Your task to perform on an android device: find snoozed emails in the gmail app Image 0: 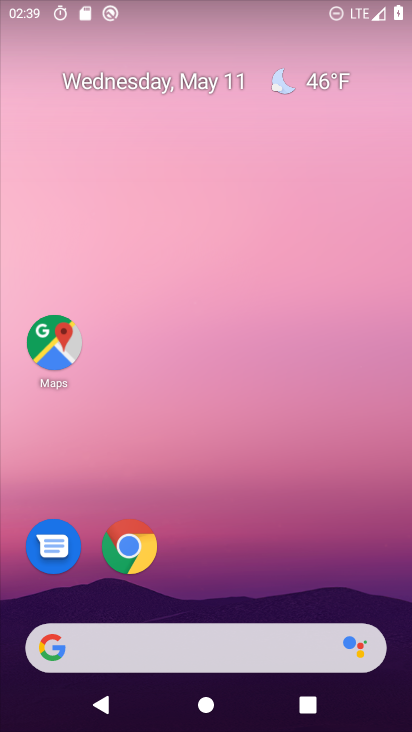
Step 0: drag from (271, 674) to (316, 118)
Your task to perform on an android device: find snoozed emails in the gmail app Image 1: 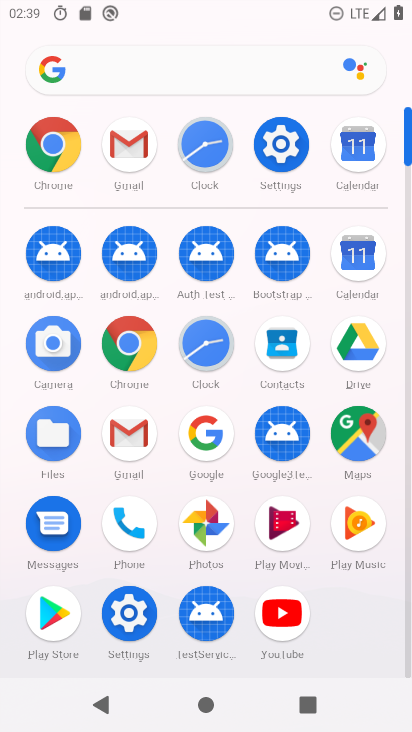
Step 1: click (126, 418)
Your task to perform on an android device: find snoozed emails in the gmail app Image 2: 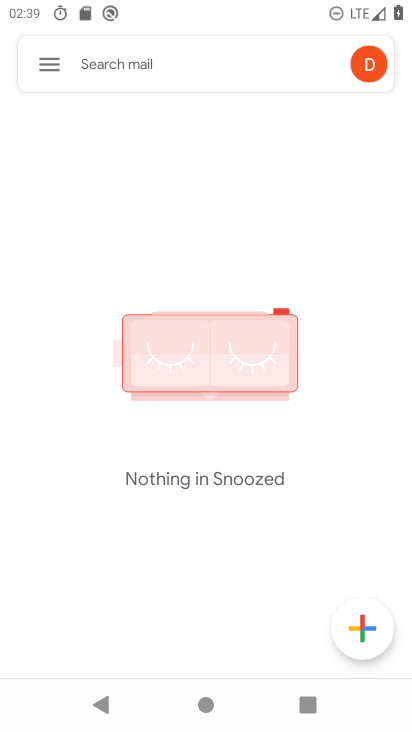
Step 2: click (42, 81)
Your task to perform on an android device: find snoozed emails in the gmail app Image 3: 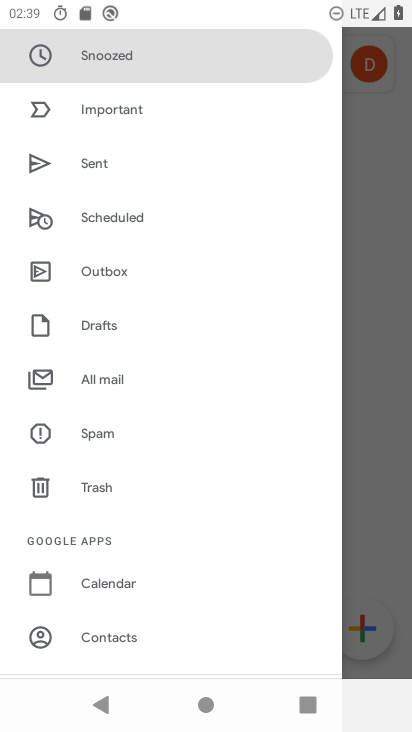
Step 3: click (114, 63)
Your task to perform on an android device: find snoozed emails in the gmail app Image 4: 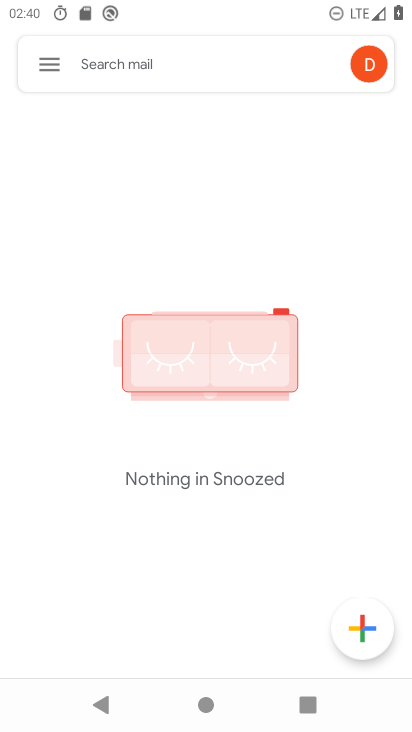
Step 4: task complete